Your task to perform on an android device: check google app version Image 0: 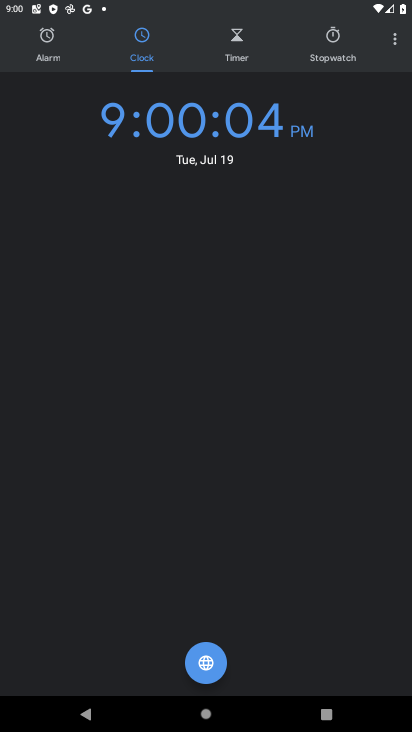
Step 0: click (133, 387)
Your task to perform on an android device: check google app version Image 1: 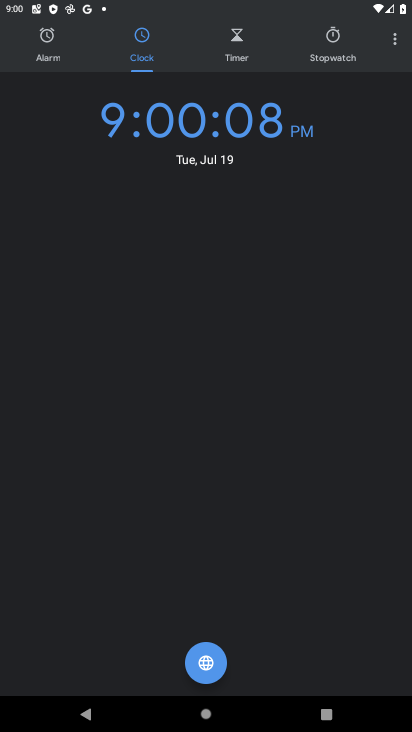
Step 1: press home button
Your task to perform on an android device: check google app version Image 2: 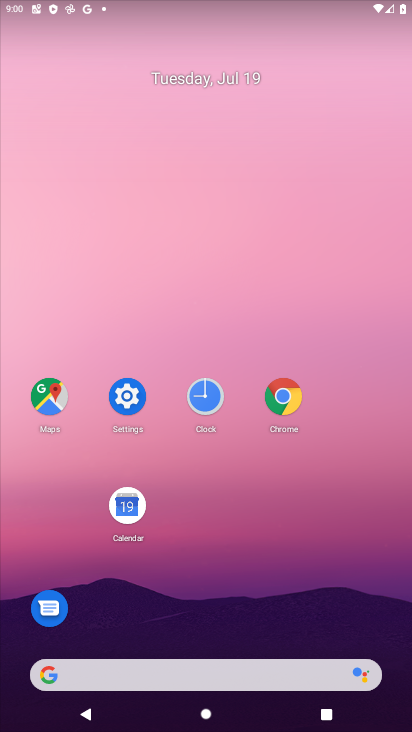
Step 2: drag from (388, 696) to (338, 88)
Your task to perform on an android device: check google app version Image 3: 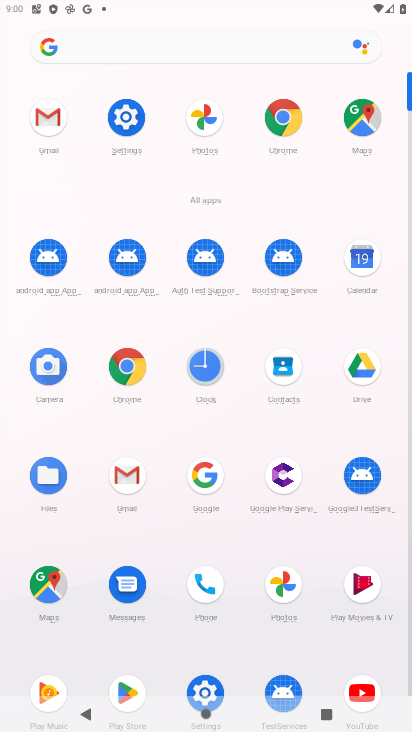
Step 3: click (205, 482)
Your task to perform on an android device: check google app version Image 4: 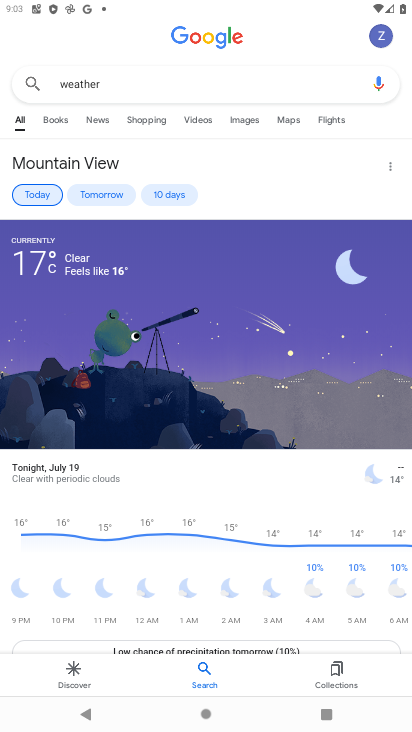
Step 4: click (324, 674)
Your task to perform on an android device: check google app version Image 5: 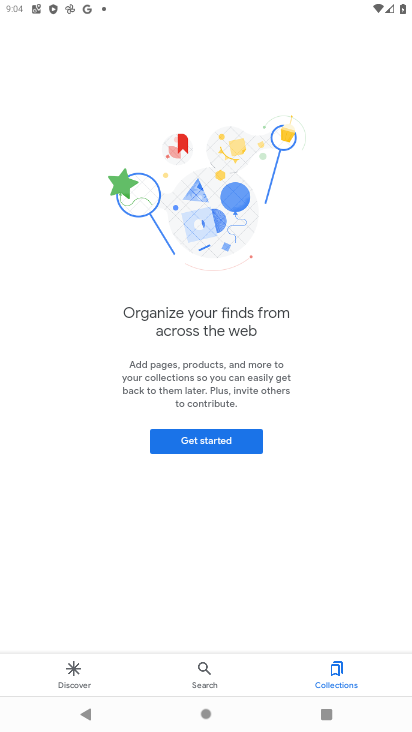
Step 5: task complete